Your task to perform on an android device: Clear all items from cart on costco.com. Search for macbook air on costco.com, select the first entry, add it to the cart, then select checkout. Image 0: 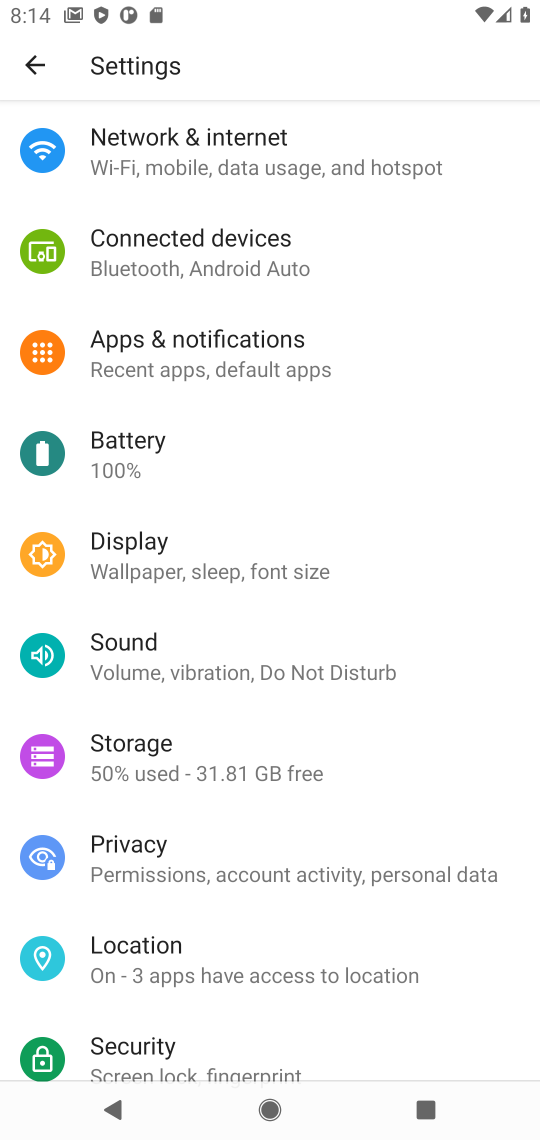
Step 0: press home button
Your task to perform on an android device: Clear all items from cart on costco.com. Search for macbook air on costco.com, select the first entry, add it to the cart, then select checkout. Image 1: 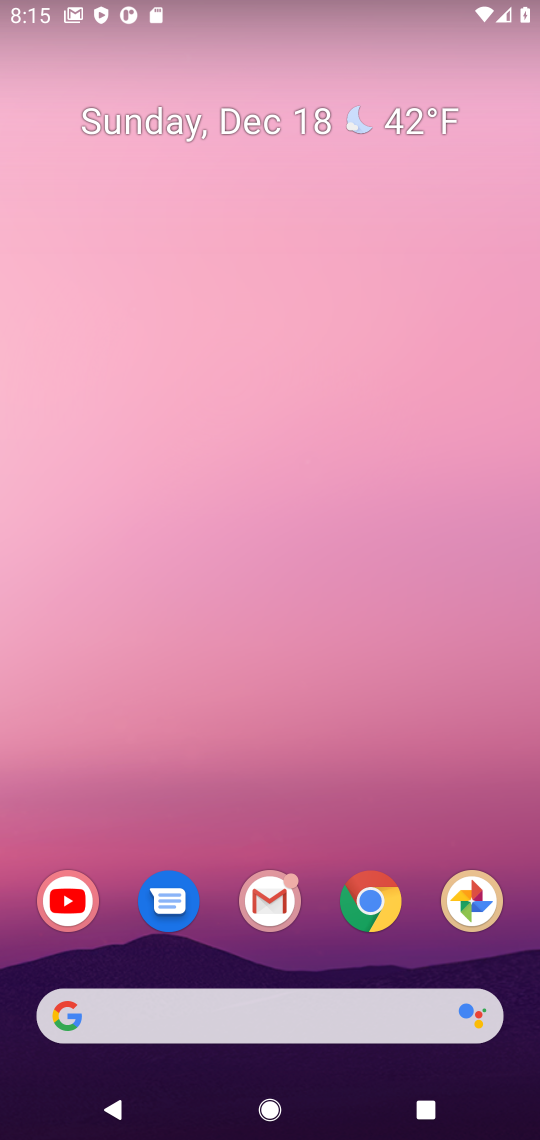
Step 1: click (387, 894)
Your task to perform on an android device: Clear all items from cart on costco.com. Search for macbook air on costco.com, select the first entry, add it to the cart, then select checkout. Image 2: 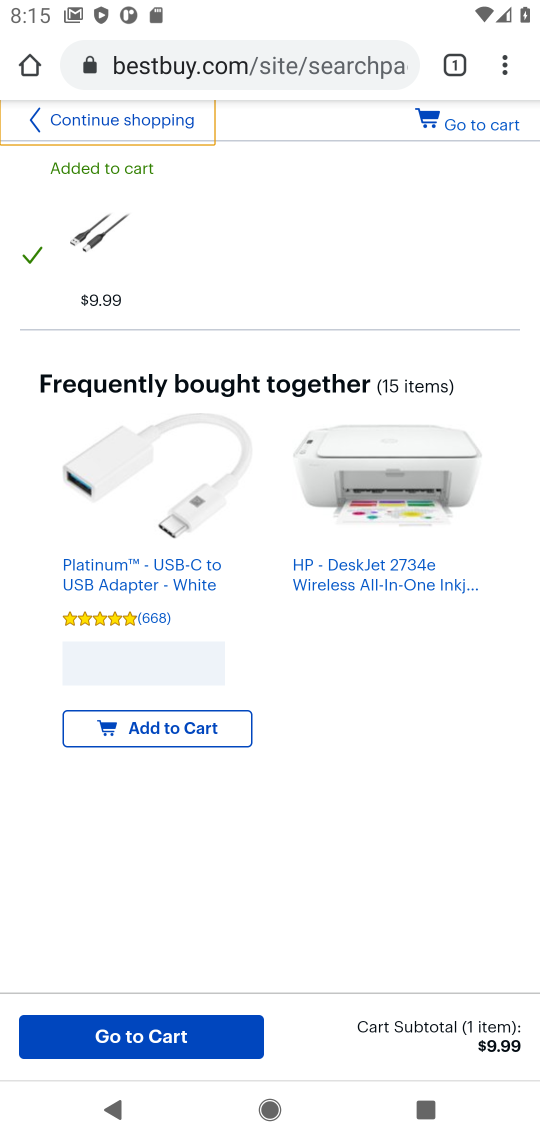
Step 2: click (243, 77)
Your task to perform on an android device: Clear all items from cart on costco.com. Search for macbook air on costco.com, select the first entry, add it to the cart, then select checkout. Image 3: 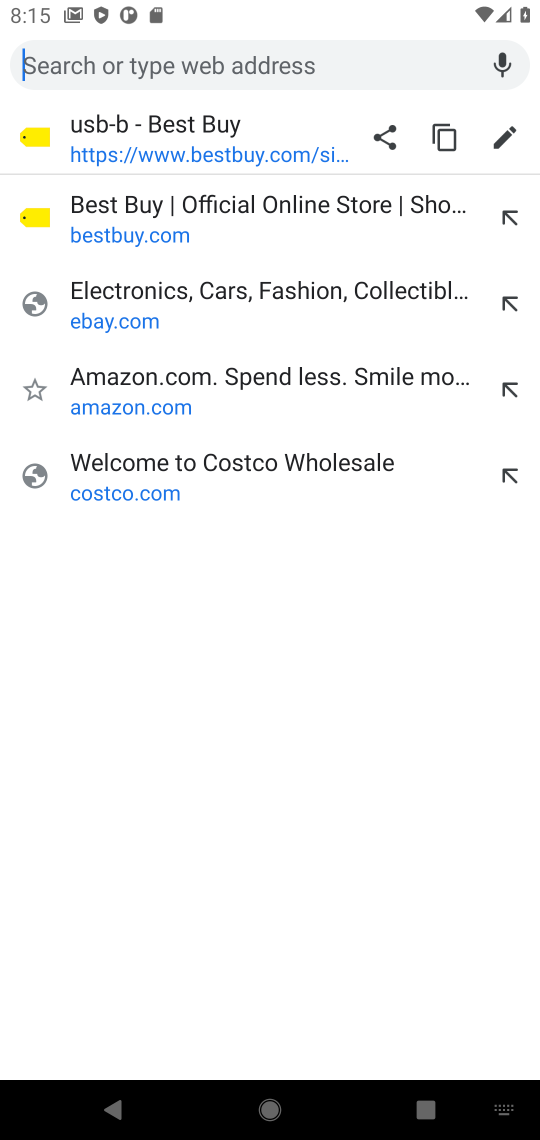
Step 3: type "costco"
Your task to perform on an android device: Clear all items from cart on costco.com. Search for macbook air on costco.com, select the first entry, add it to the cart, then select checkout. Image 4: 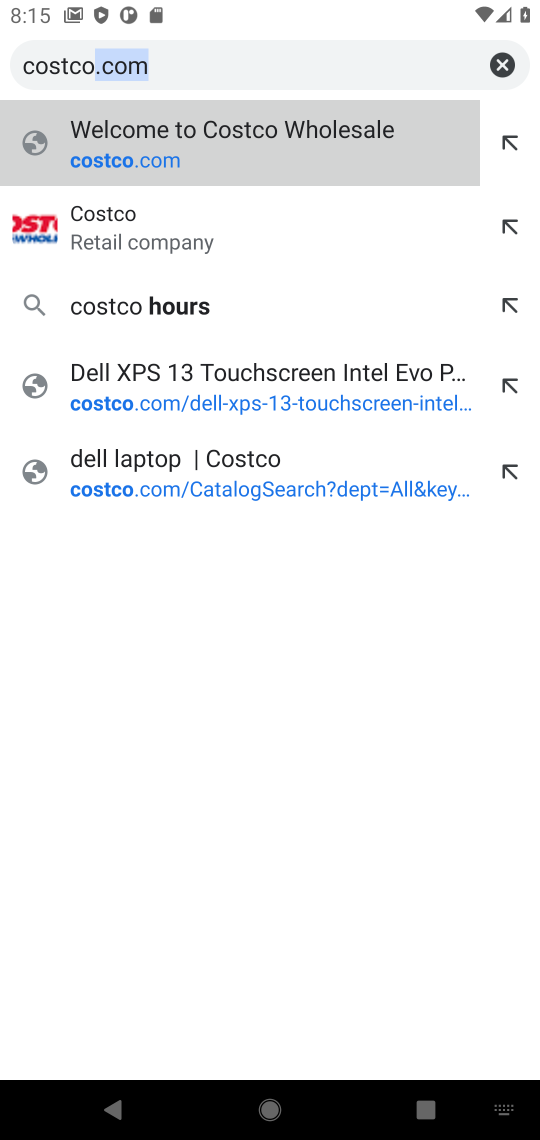
Step 4: click (183, 169)
Your task to perform on an android device: Clear all items from cart on costco.com. Search for macbook air on costco.com, select the first entry, add it to the cart, then select checkout. Image 5: 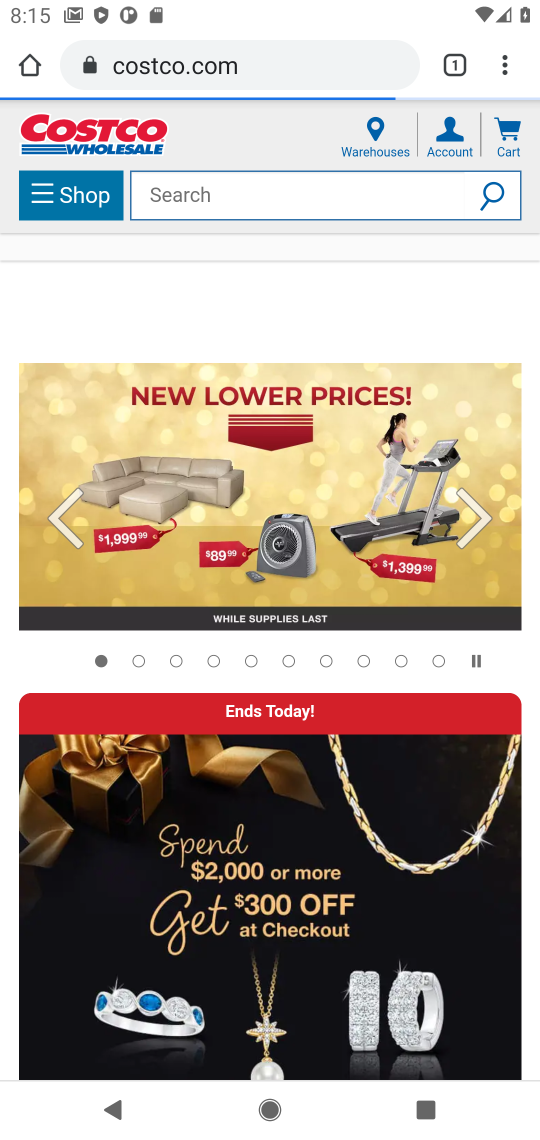
Step 5: click (220, 202)
Your task to perform on an android device: Clear all items from cart on costco.com. Search for macbook air on costco.com, select the first entry, add it to the cart, then select checkout. Image 6: 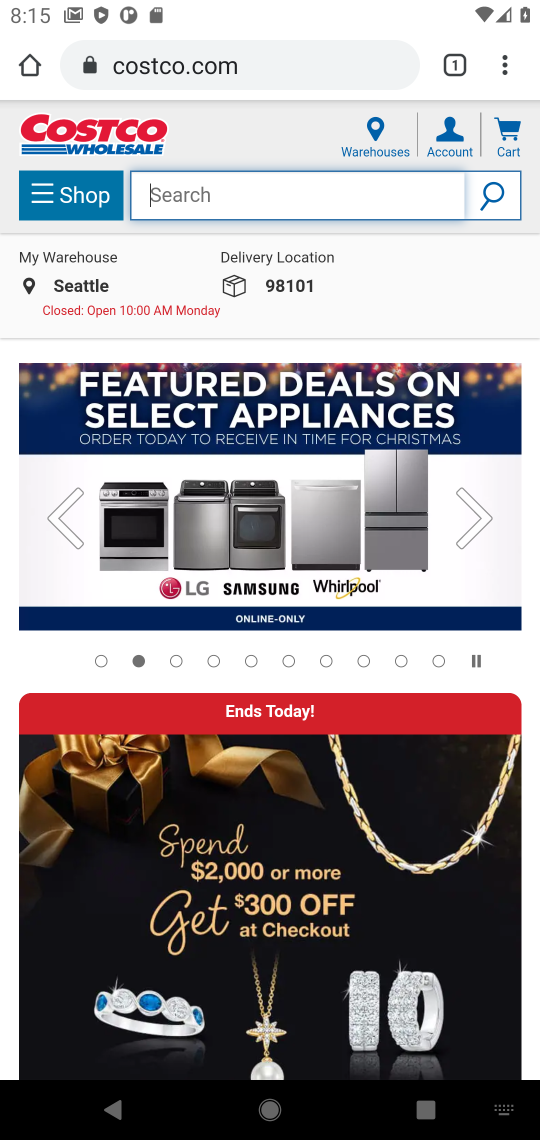
Step 6: type "macbook air"
Your task to perform on an android device: Clear all items from cart on costco.com. Search for macbook air on costco.com, select the first entry, add it to the cart, then select checkout. Image 7: 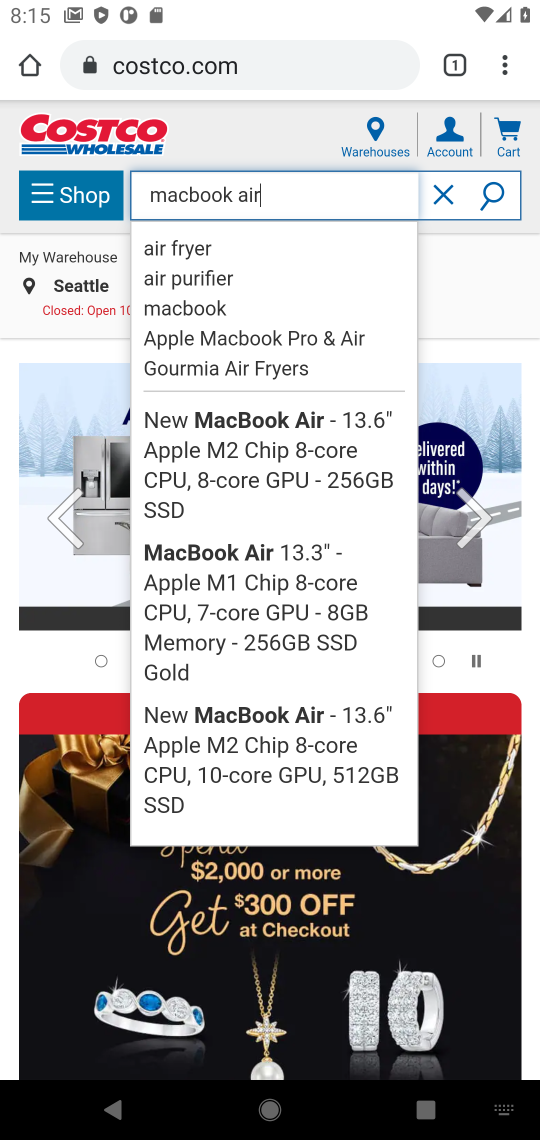
Step 7: click (478, 207)
Your task to perform on an android device: Clear all items from cart on costco.com. Search for macbook air on costco.com, select the first entry, add it to the cart, then select checkout. Image 8: 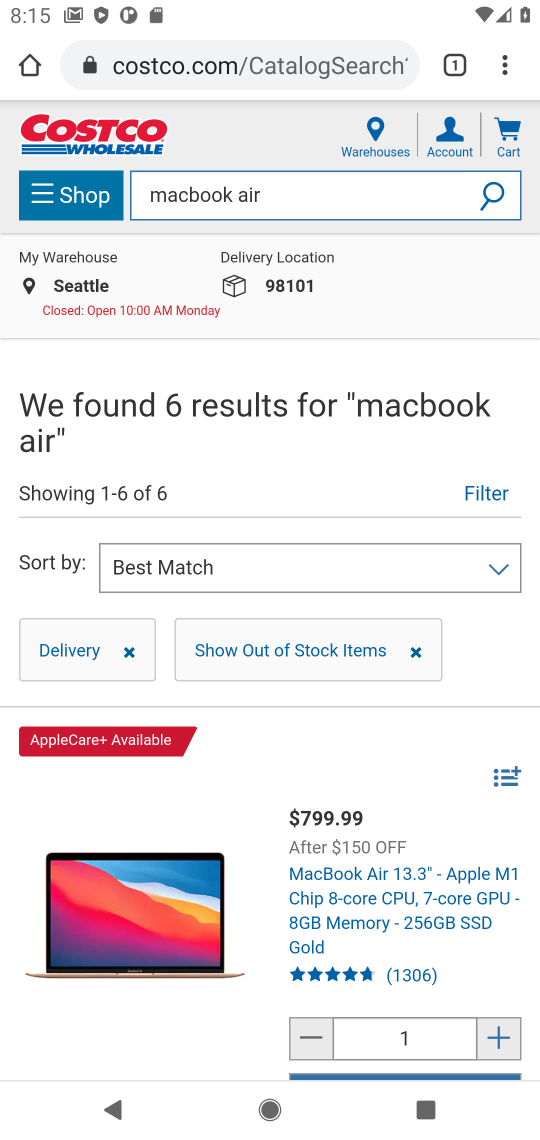
Step 8: drag from (225, 1028) to (253, 561)
Your task to perform on an android device: Clear all items from cart on costco.com. Search for macbook air on costco.com, select the first entry, add it to the cart, then select checkout. Image 9: 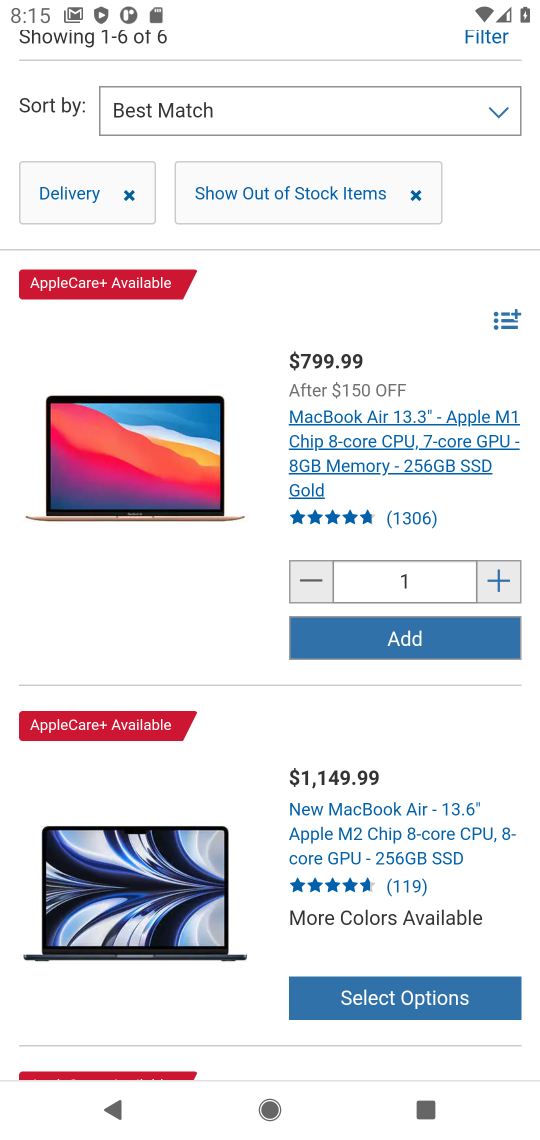
Step 9: click (432, 634)
Your task to perform on an android device: Clear all items from cart on costco.com. Search for macbook air on costco.com, select the first entry, add it to the cart, then select checkout. Image 10: 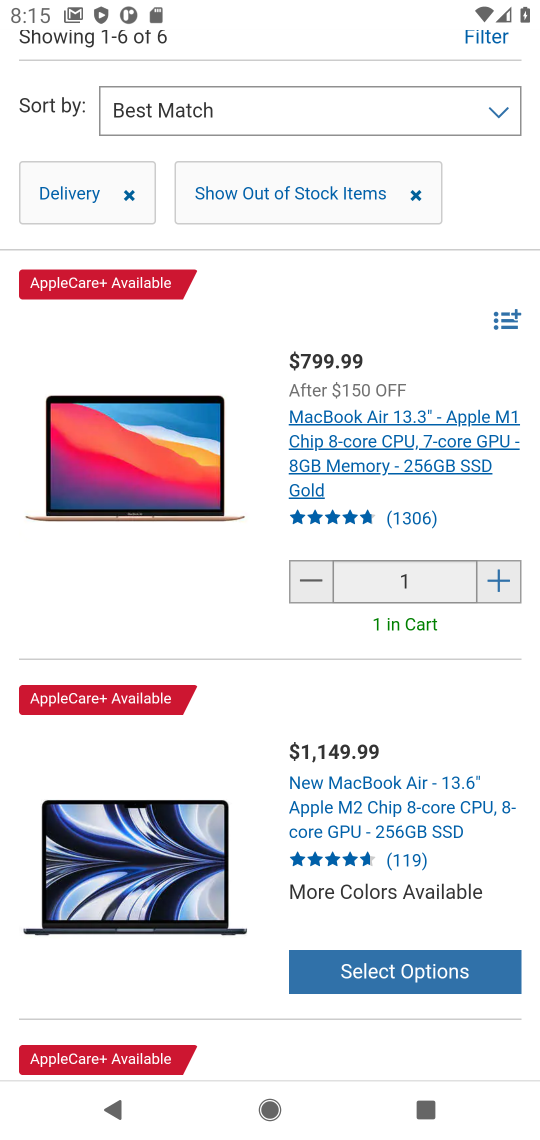
Step 10: task complete